Your task to perform on an android device: make emails show in primary in the gmail app Image 0: 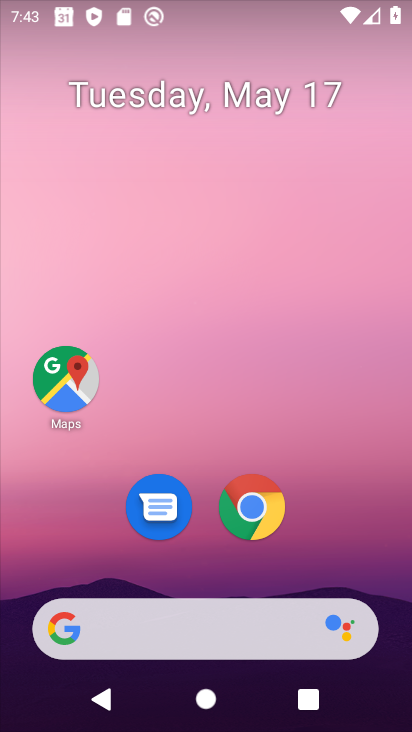
Step 0: drag from (365, 577) to (351, 32)
Your task to perform on an android device: make emails show in primary in the gmail app Image 1: 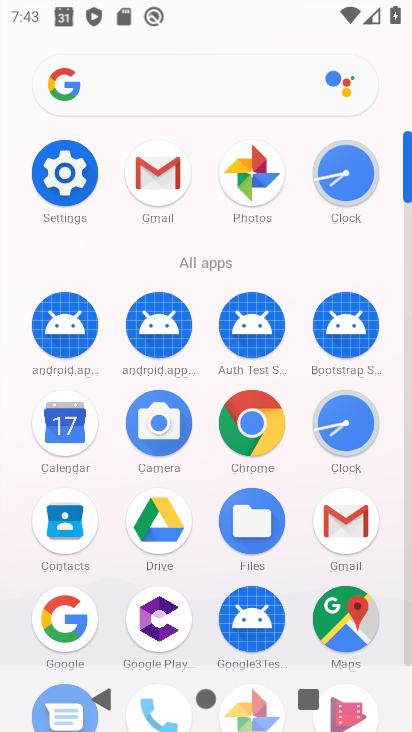
Step 1: click (145, 170)
Your task to perform on an android device: make emails show in primary in the gmail app Image 2: 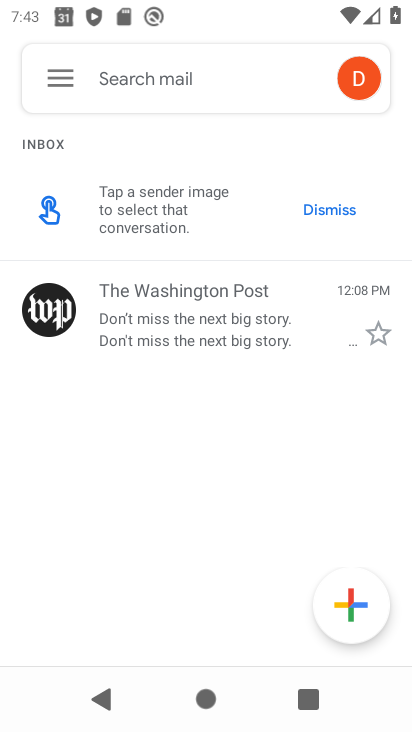
Step 2: click (47, 76)
Your task to perform on an android device: make emails show in primary in the gmail app Image 3: 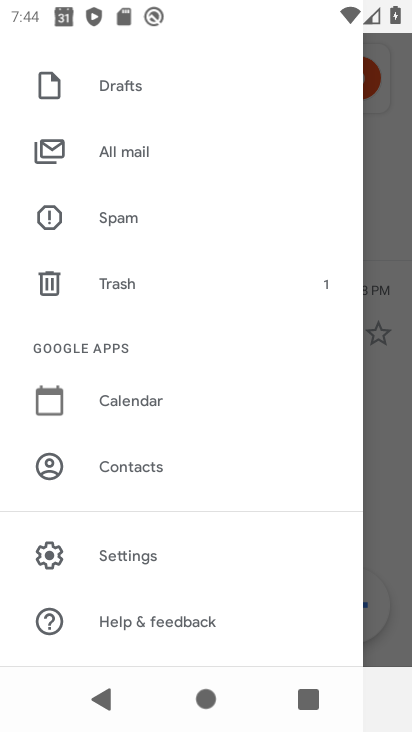
Step 3: click (147, 559)
Your task to perform on an android device: make emails show in primary in the gmail app Image 4: 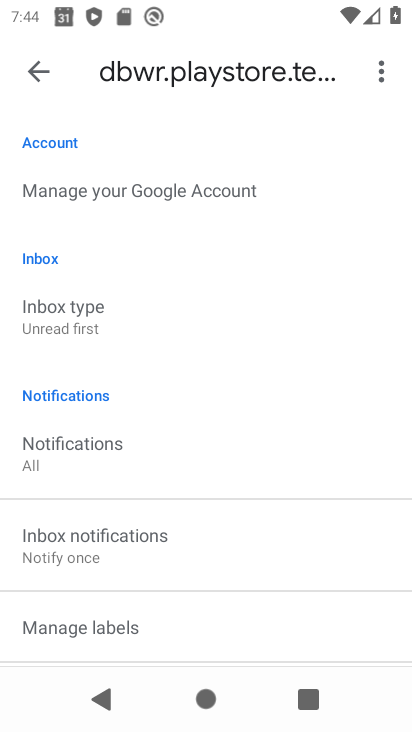
Step 4: task complete